Your task to perform on an android device: turn smart compose on in the gmail app Image 0: 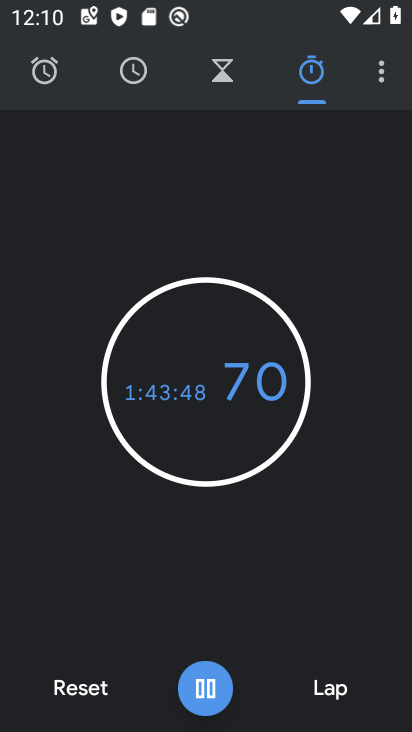
Step 0: press home button
Your task to perform on an android device: turn smart compose on in the gmail app Image 1: 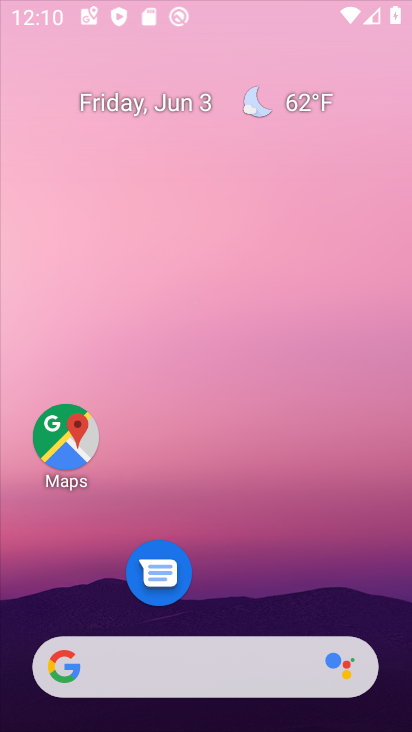
Step 1: drag from (325, 591) to (315, 120)
Your task to perform on an android device: turn smart compose on in the gmail app Image 2: 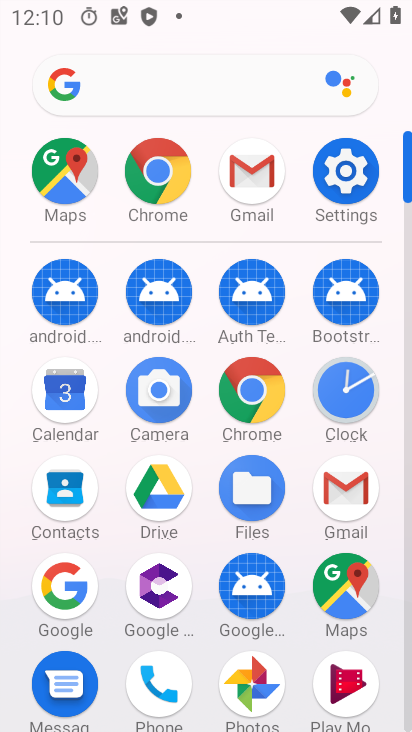
Step 2: click (347, 501)
Your task to perform on an android device: turn smart compose on in the gmail app Image 3: 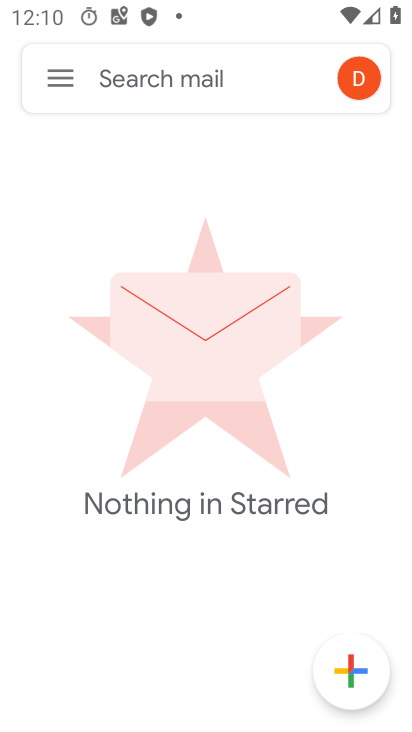
Step 3: click (74, 73)
Your task to perform on an android device: turn smart compose on in the gmail app Image 4: 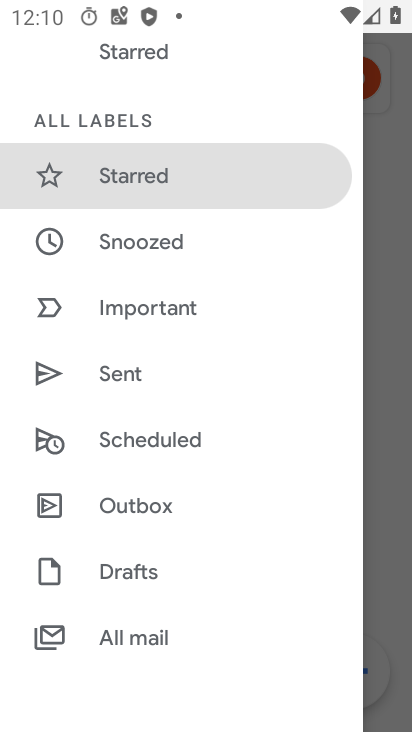
Step 4: drag from (214, 635) to (234, 164)
Your task to perform on an android device: turn smart compose on in the gmail app Image 5: 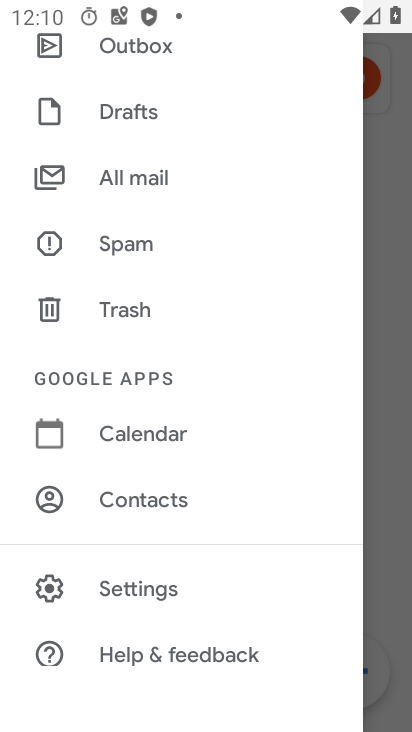
Step 5: click (138, 579)
Your task to perform on an android device: turn smart compose on in the gmail app Image 6: 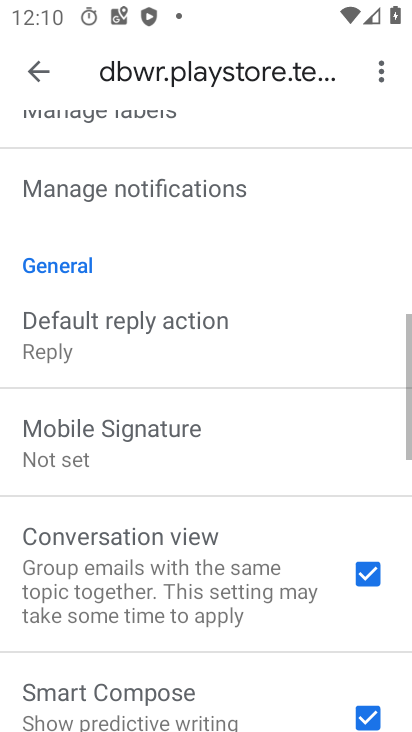
Step 6: task complete